Your task to perform on an android device: uninstall "Google Home" Image 0: 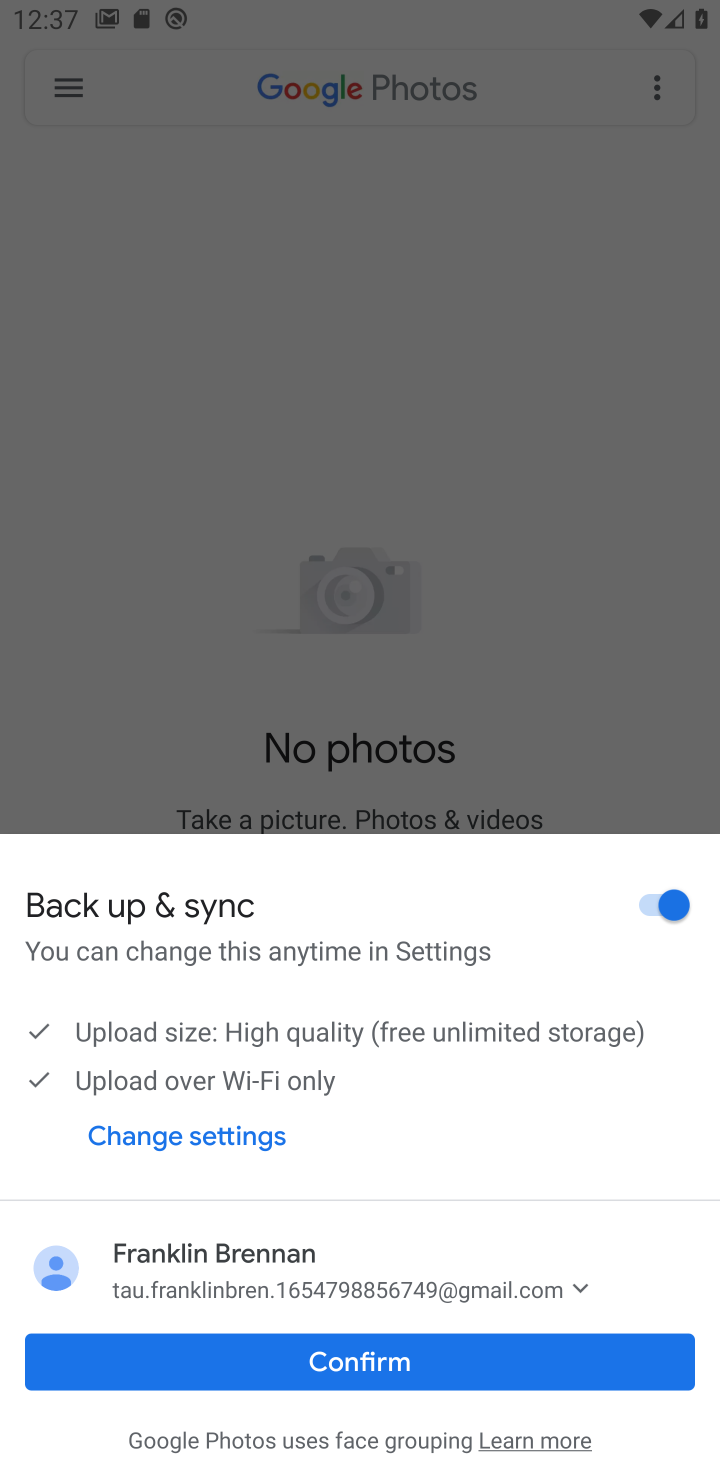
Step 0: press home button
Your task to perform on an android device: uninstall "Google Home" Image 1: 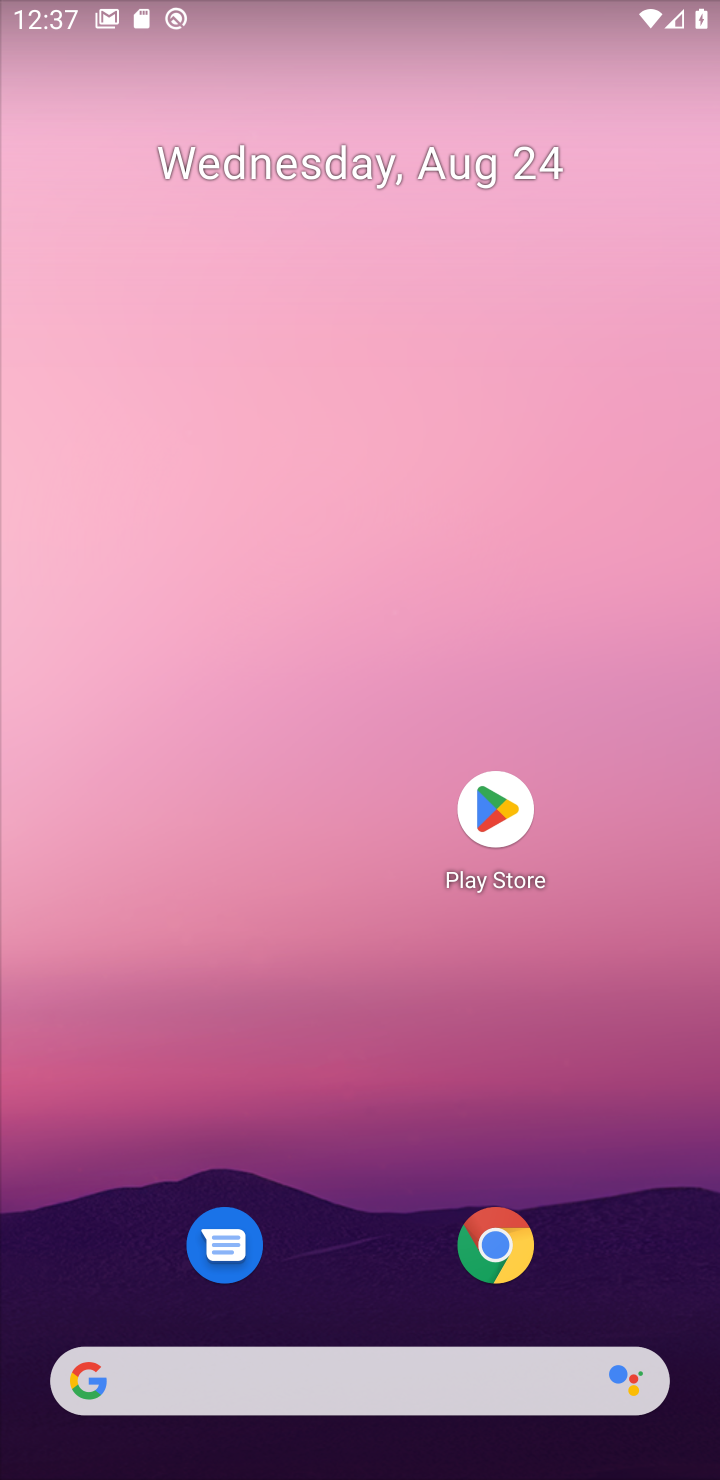
Step 1: click (496, 804)
Your task to perform on an android device: uninstall "Google Home" Image 2: 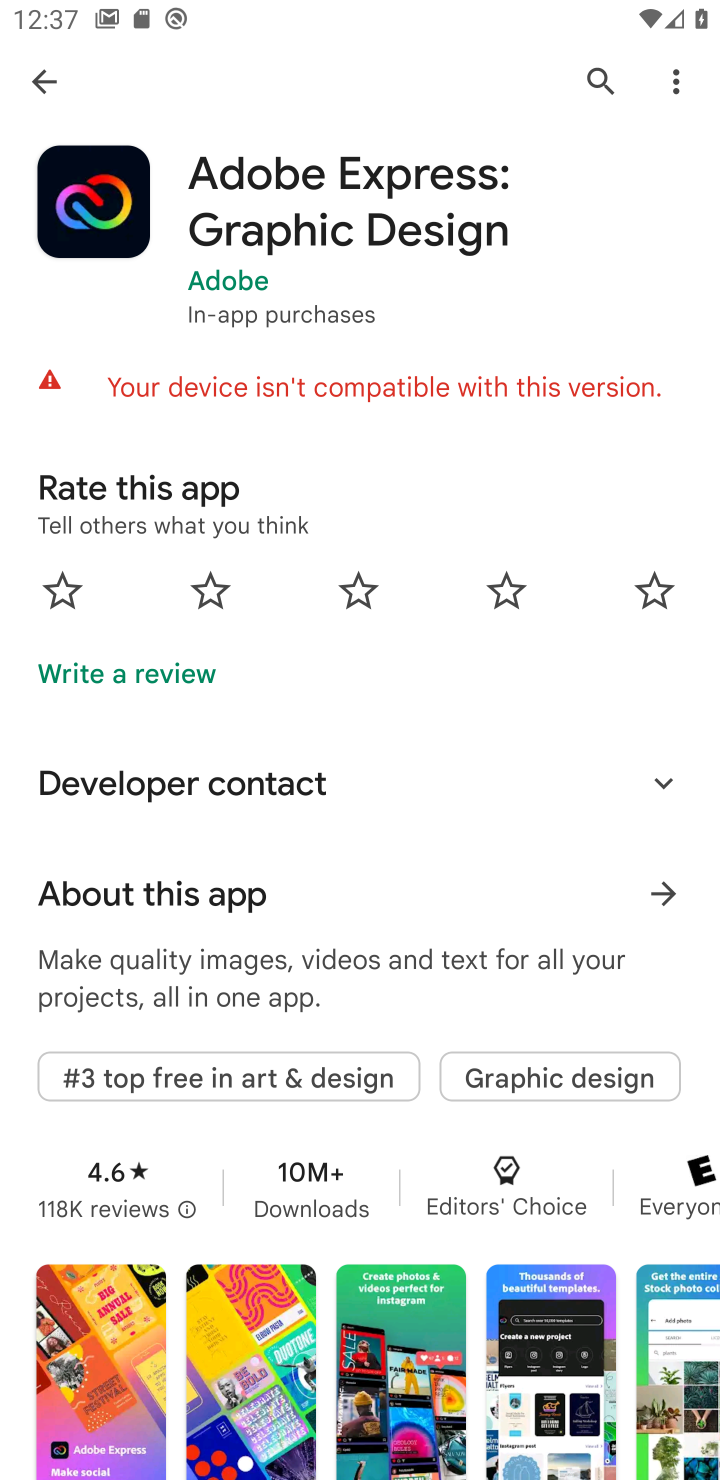
Step 2: click (600, 69)
Your task to perform on an android device: uninstall "Google Home" Image 3: 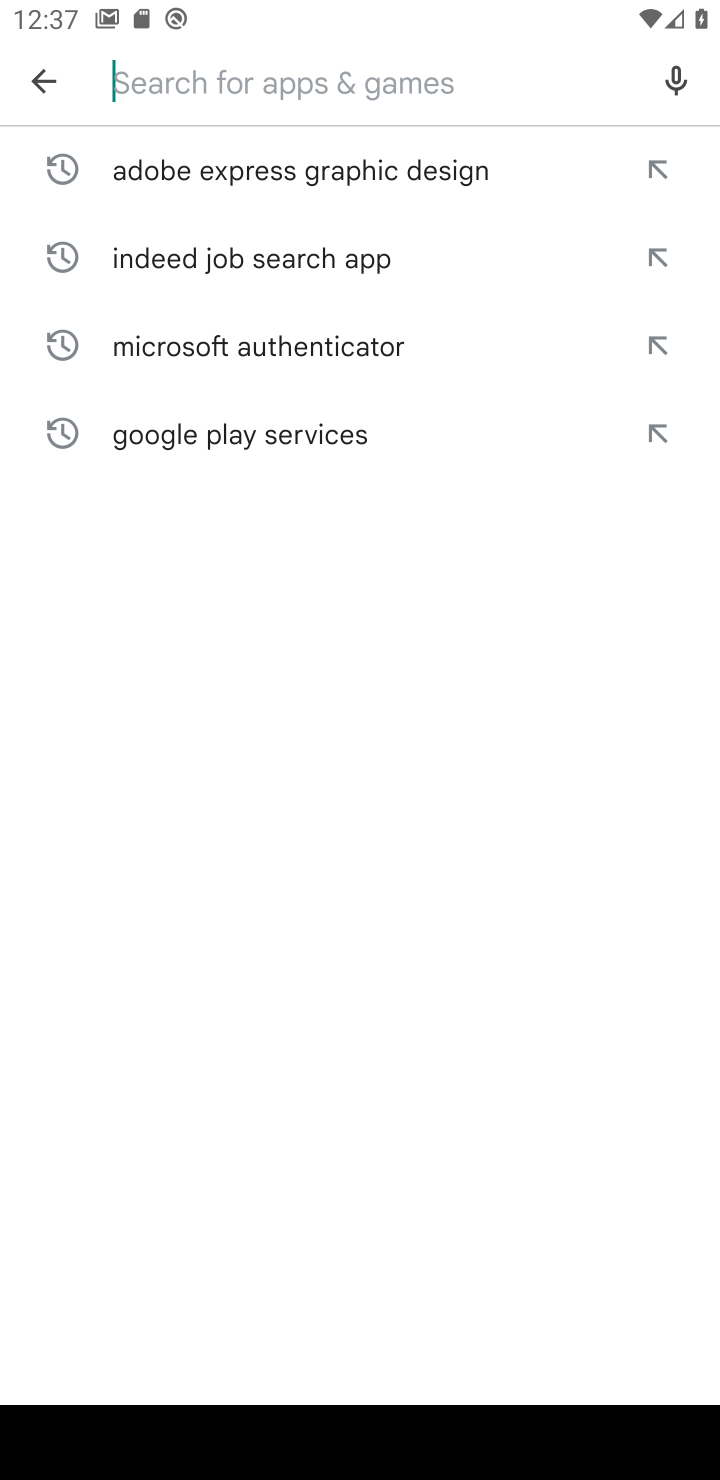
Step 3: type "Google Home"
Your task to perform on an android device: uninstall "Google Home" Image 4: 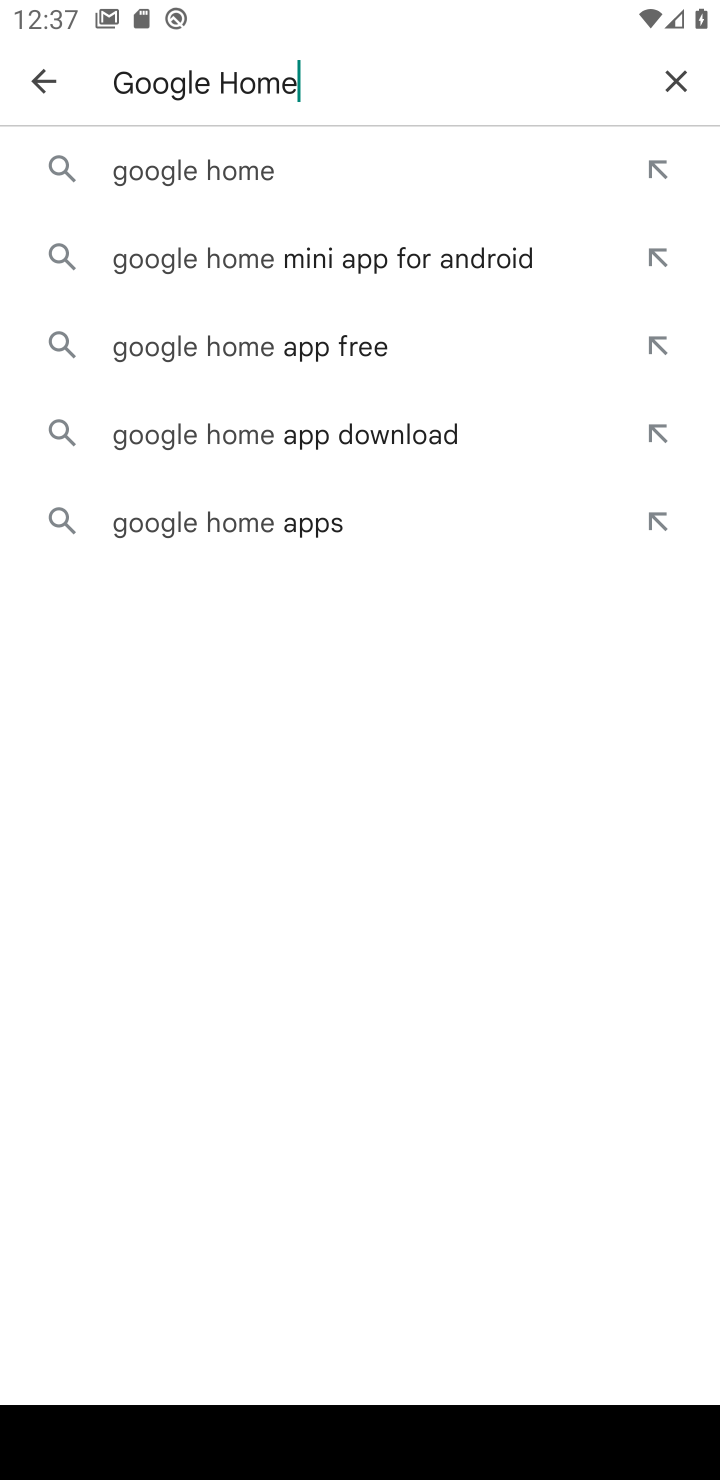
Step 4: click (252, 155)
Your task to perform on an android device: uninstall "Google Home" Image 5: 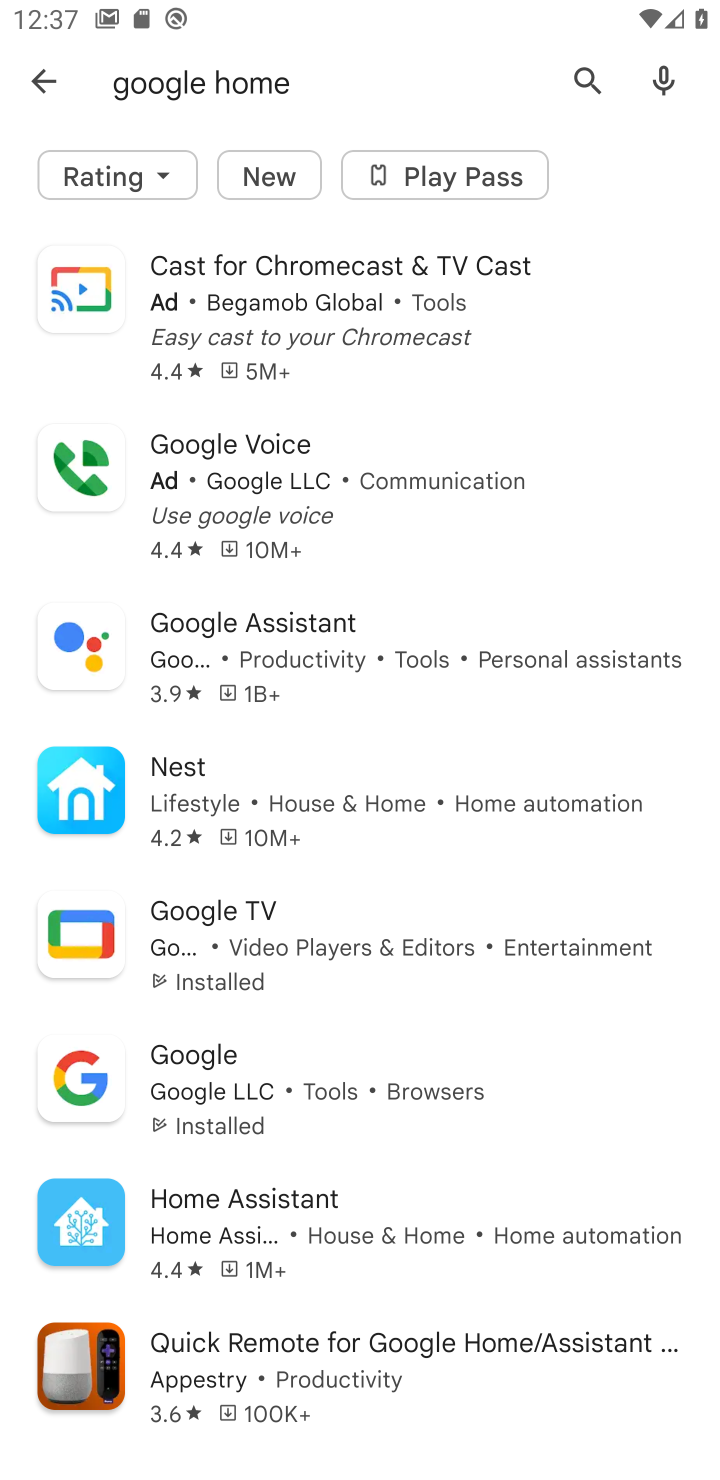
Step 5: task complete